Your task to perform on an android device: What's on my calendar tomorrow? Image 0: 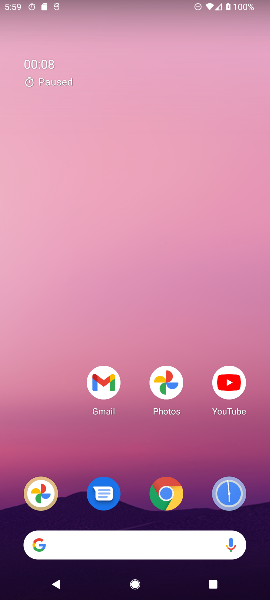
Step 0: drag from (161, 502) to (130, 292)
Your task to perform on an android device: What's on my calendar tomorrow? Image 1: 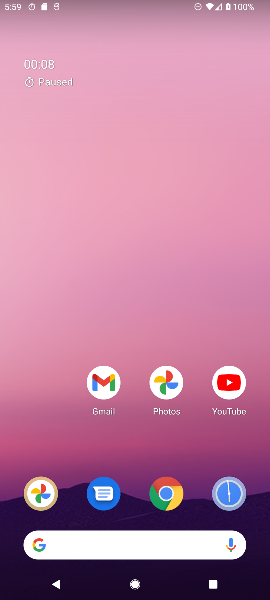
Step 1: drag from (164, 485) to (136, 289)
Your task to perform on an android device: What's on my calendar tomorrow? Image 2: 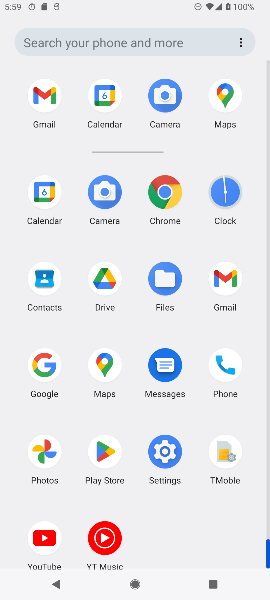
Step 2: click (34, 193)
Your task to perform on an android device: What's on my calendar tomorrow? Image 3: 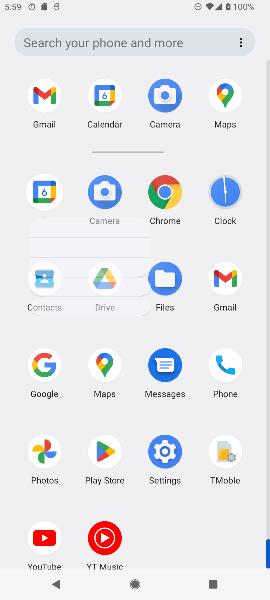
Step 3: click (35, 194)
Your task to perform on an android device: What's on my calendar tomorrow? Image 4: 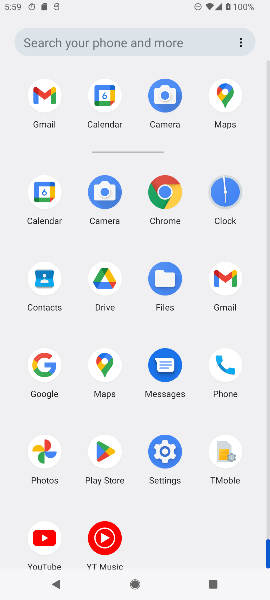
Step 4: click (50, 194)
Your task to perform on an android device: What's on my calendar tomorrow? Image 5: 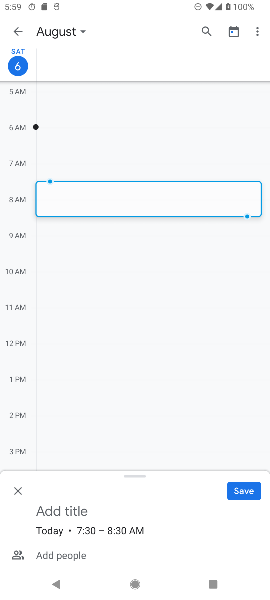
Step 5: click (81, 32)
Your task to perform on an android device: What's on my calendar tomorrow? Image 6: 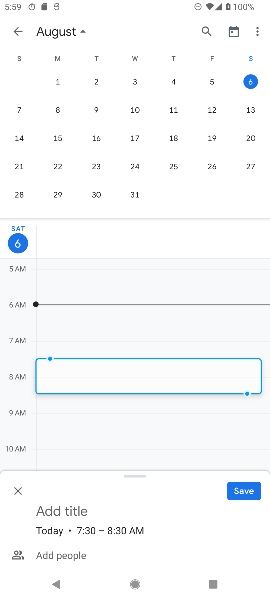
Step 6: click (24, 111)
Your task to perform on an android device: What's on my calendar tomorrow? Image 7: 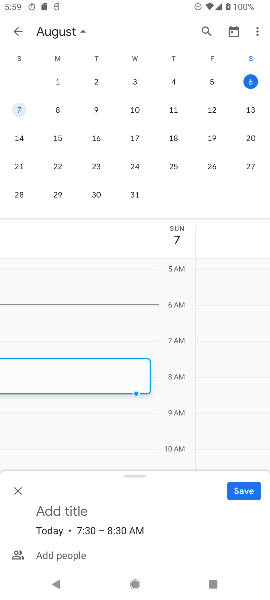
Step 7: click (24, 111)
Your task to perform on an android device: What's on my calendar tomorrow? Image 8: 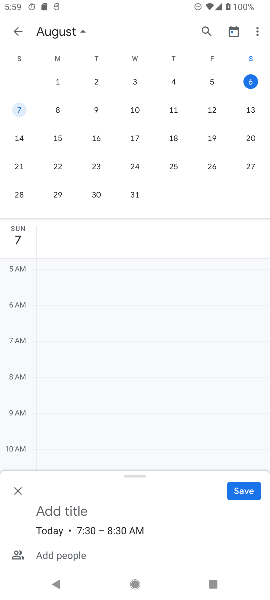
Step 8: click (25, 111)
Your task to perform on an android device: What's on my calendar tomorrow? Image 9: 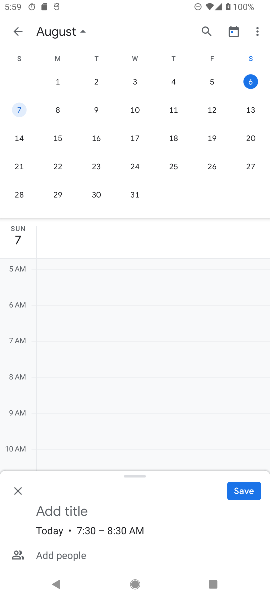
Step 9: click (25, 111)
Your task to perform on an android device: What's on my calendar tomorrow? Image 10: 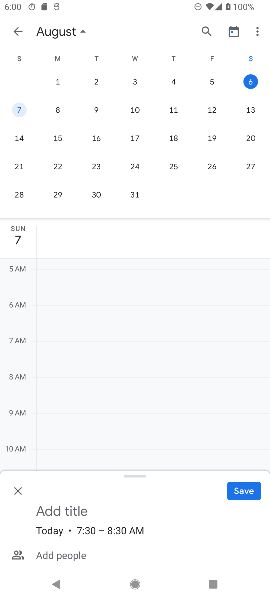
Step 10: task complete